Your task to perform on an android device: toggle airplane mode Image 0: 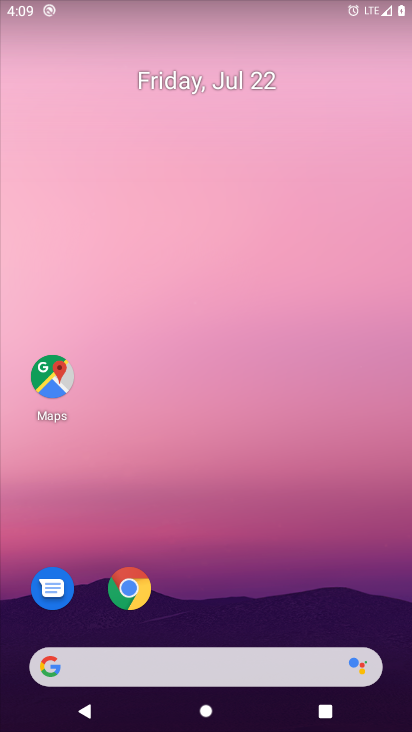
Step 0: drag from (269, 1) to (266, 458)
Your task to perform on an android device: toggle airplane mode Image 1: 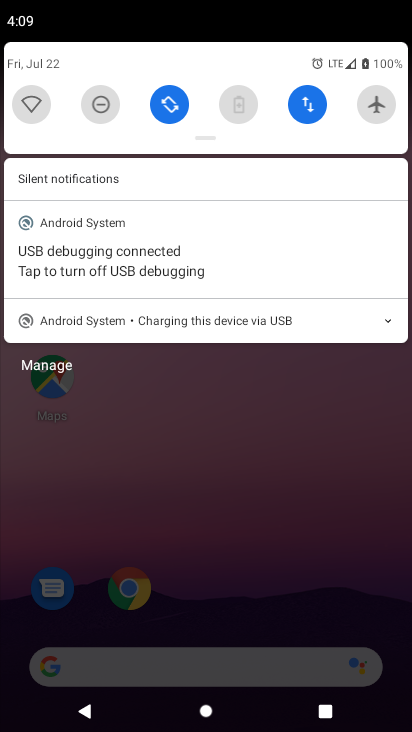
Step 1: click (383, 101)
Your task to perform on an android device: toggle airplane mode Image 2: 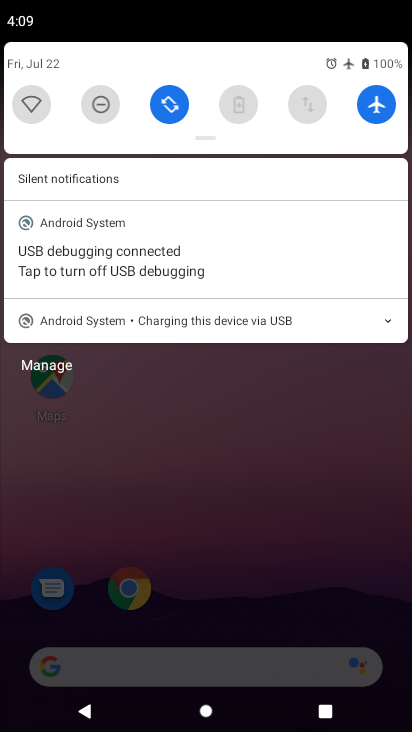
Step 2: task complete